Your task to perform on an android device: toggle pop-ups in chrome Image 0: 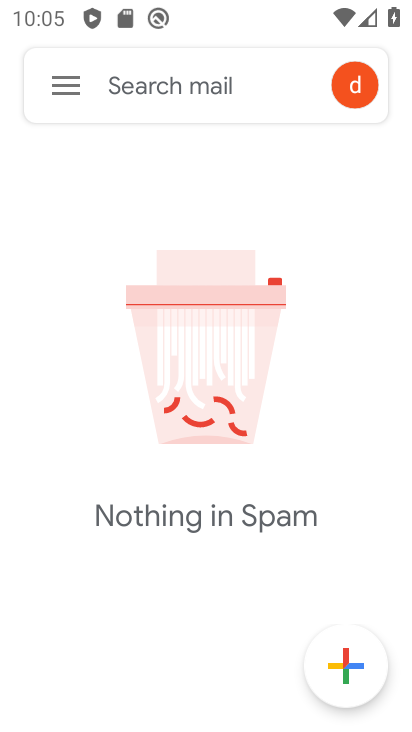
Step 0: press home button
Your task to perform on an android device: toggle pop-ups in chrome Image 1: 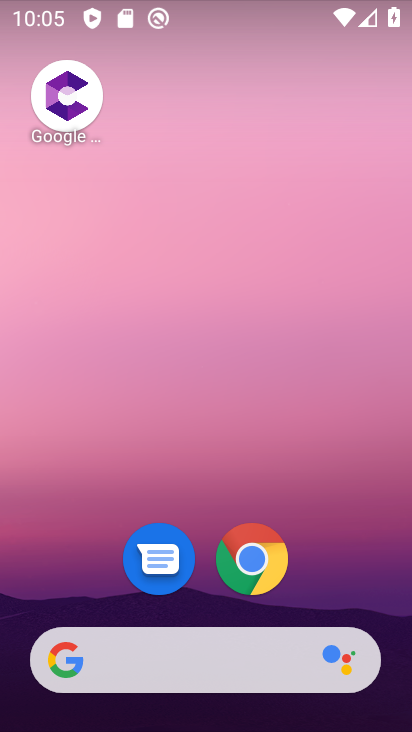
Step 1: click (255, 569)
Your task to perform on an android device: toggle pop-ups in chrome Image 2: 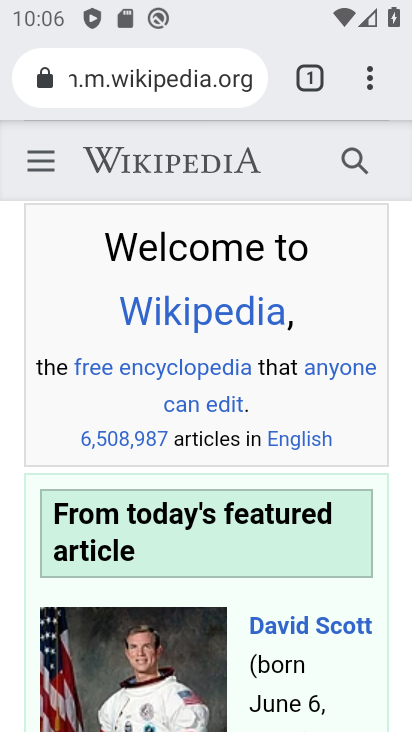
Step 2: drag from (368, 85) to (235, 602)
Your task to perform on an android device: toggle pop-ups in chrome Image 3: 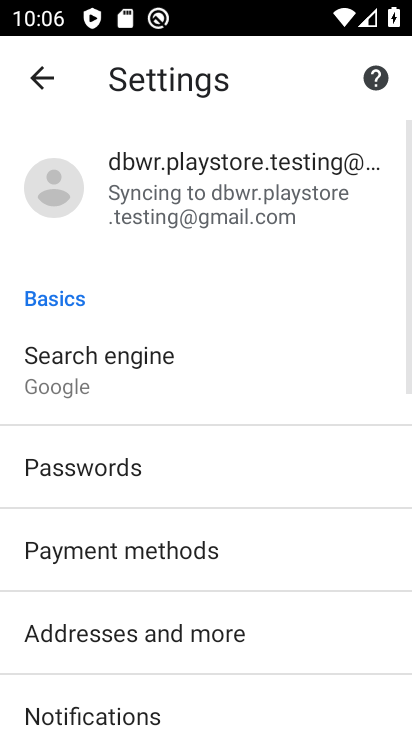
Step 3: drag from (315, 622) to (287, 340)
Your task to perform on an android device: toggle pop-ups in chrome Image 4: 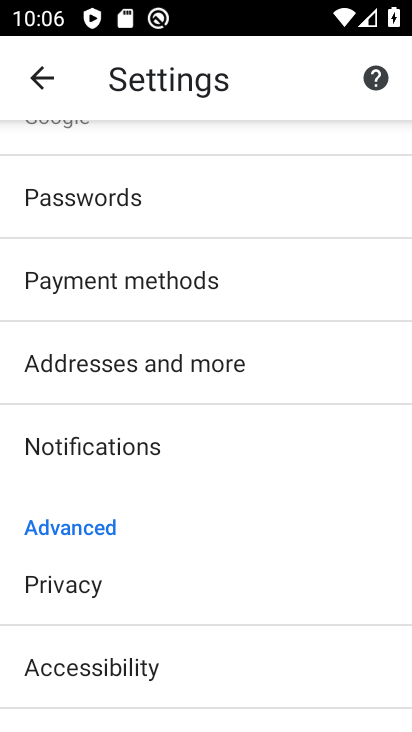
Step 4: drag from (294, 617) to (271, 272)
Your task to perform on an android device: toggle pop-ups in chrome Image 5: 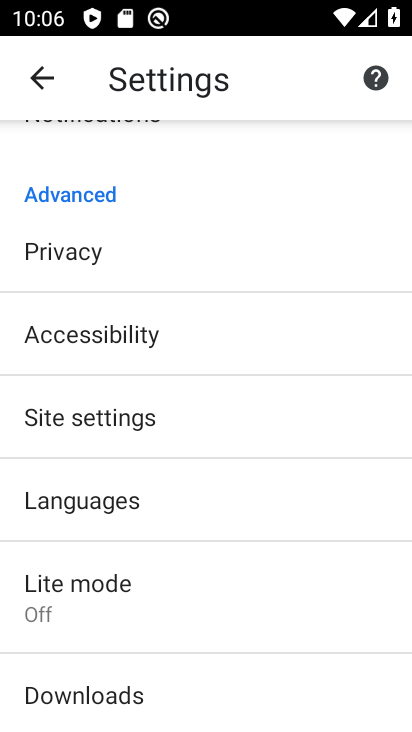
Step 5: click (126, 430)
Your task to perform on an android device: toggle pop-ups in chrome Image 6: 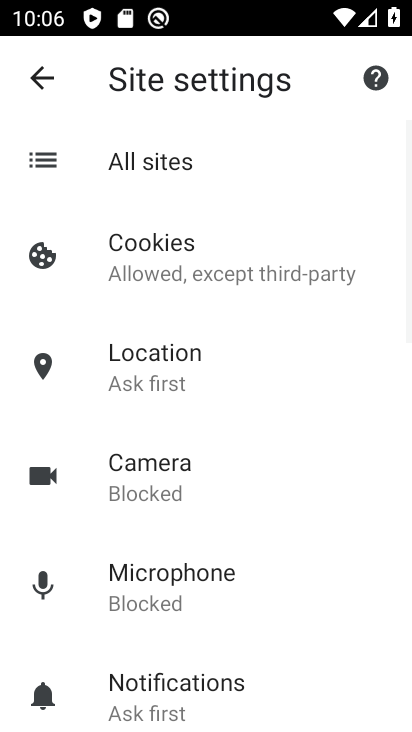
Step 6: drag from (303, 578) to (276, 219)
Your task to perform on an android device: toggle pop-ups in chrome Image 7: 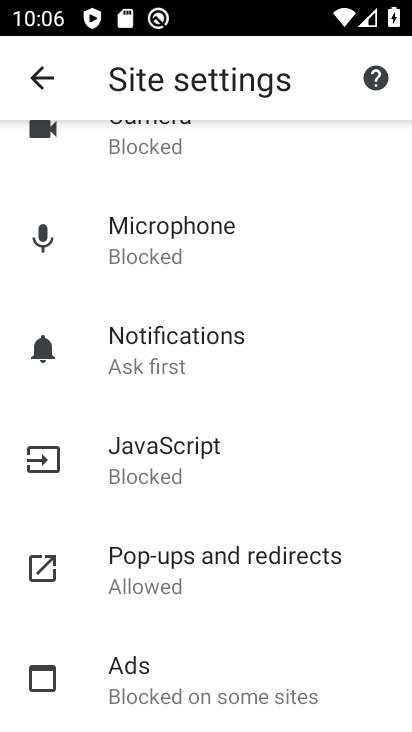
Step 7: click (221, 552)
Your task to perform on an android device: toggle pop-ups in chrome Image 8: 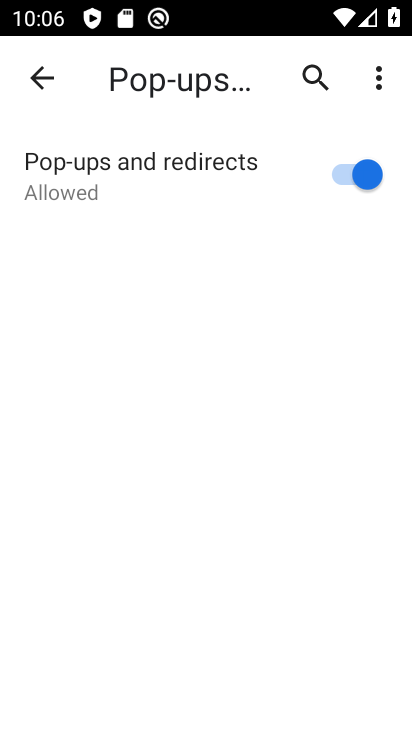
Step 8: click (375, 172)
Your task to perform on an android device: toggle pop-ups in chrome Image 9: 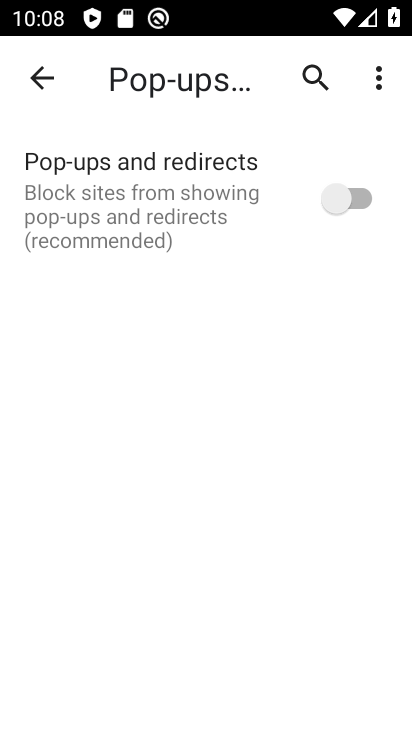
Step 9: task complete